Your task to perform on an android device: add a contact Image 0: 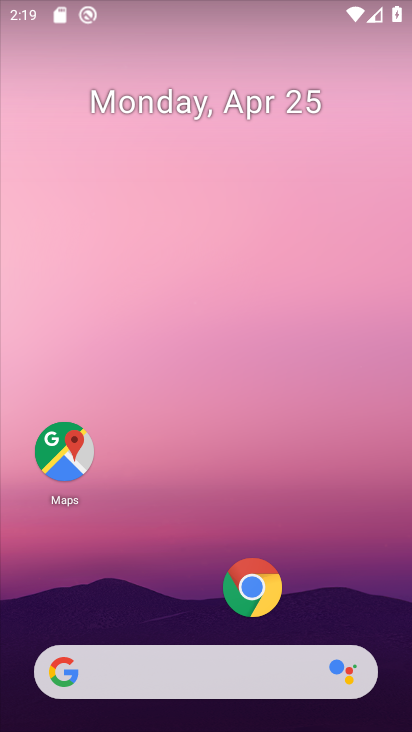
Step 0: press home button
Your task to perform on an android device: add a contact Image 1: 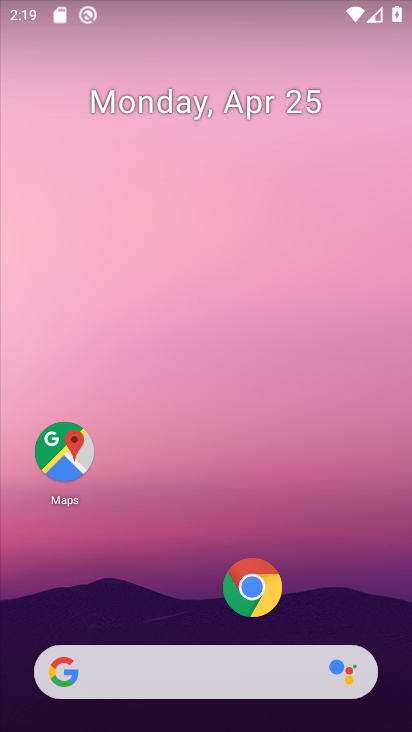
Step 1: drag from (195, 626) to (200, 51)
Your task to perform on an android device: add a contact Image 2: 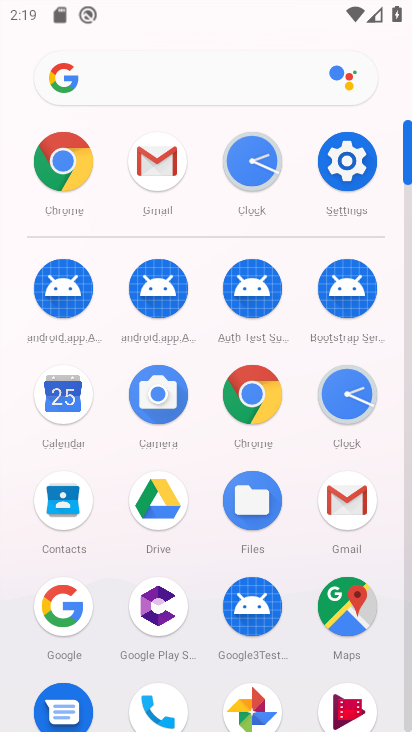
Step 2: click (62, 493)
Your task to perform on an android device: add a contact Image 3: 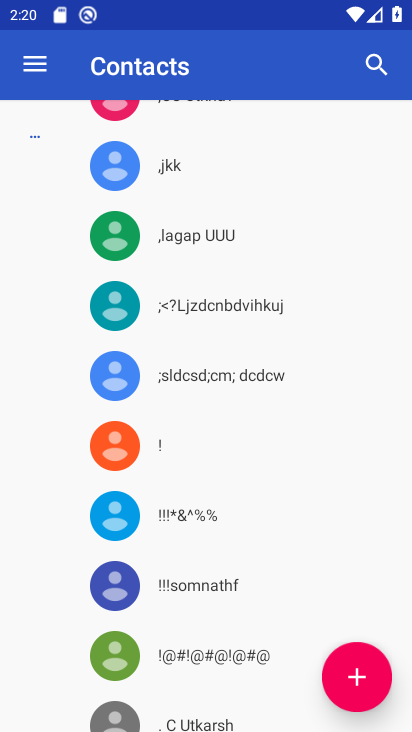
Step 3: click (362, 677)
Your task to perform on an android device: add a contact Image 4: 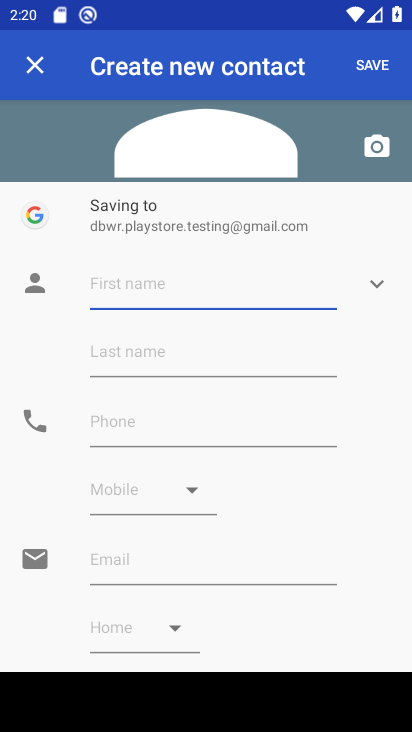
Step 4: type "bvcdrtyj"
Your task to perform on an android device: add a contact Image 5: 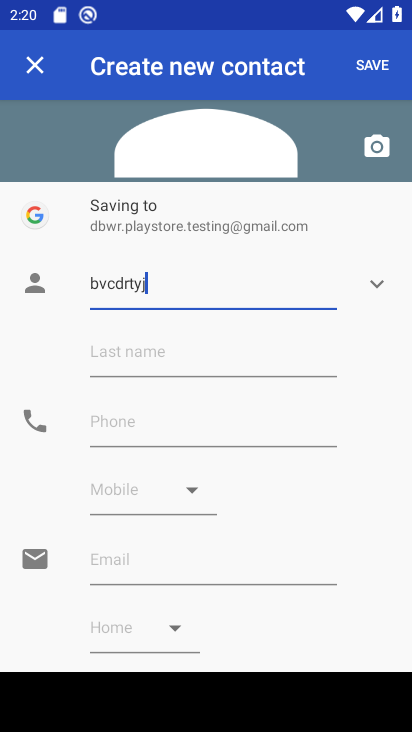
Step 5: click (372, 63)
Your task to perform on an android device: add a contact Image 6: 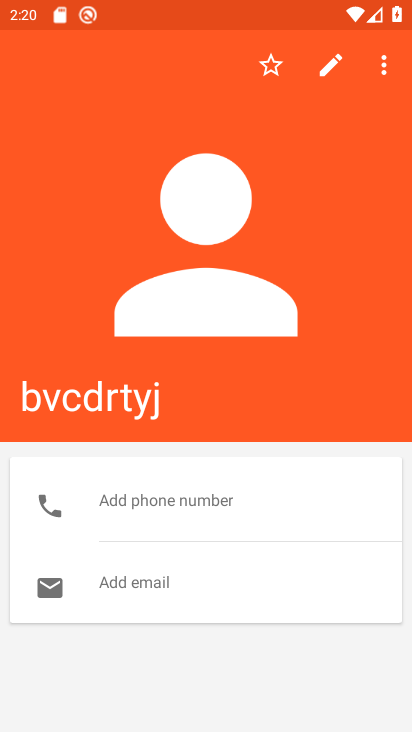
Step 6: task complete